Your task to perform on an android device: Open ESPN.com Image 0: 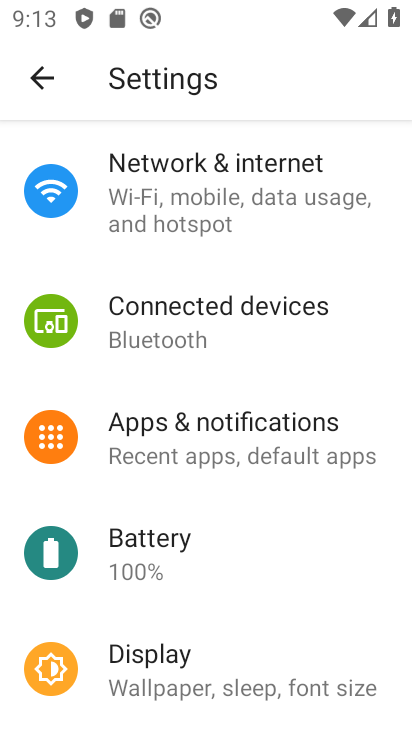
Step 0: press home button
Your task to perform on an android device: Open ESPN.com Image 1: 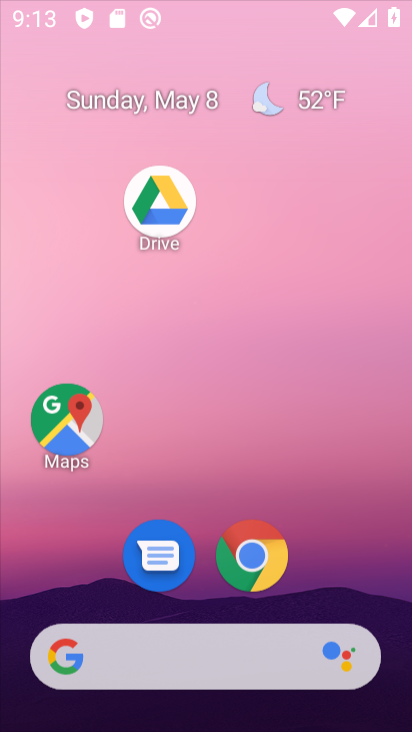
Step 1: press home button
Your task to perform on an android device: Open ESPN.com Image 2: 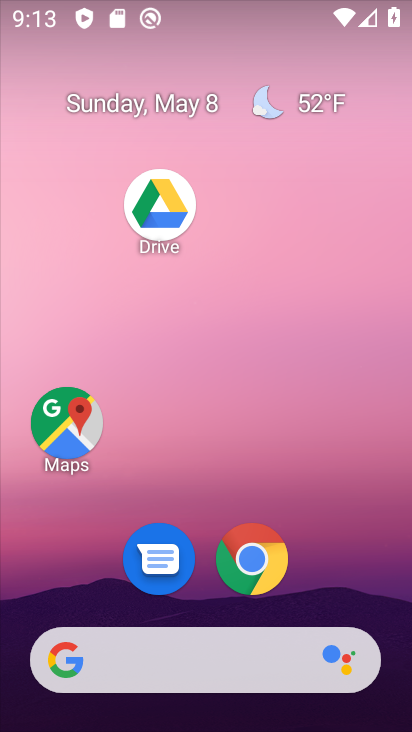
Step 2: click (257, 552)
Your task to perform on an android device: Open ESPN.com Image 3: 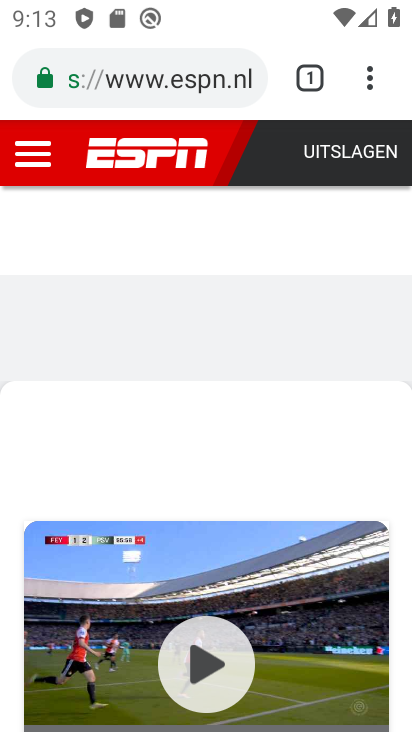
Step 3: task complete